Your task to perform on an android device: Go to ESPN.com Image 0: 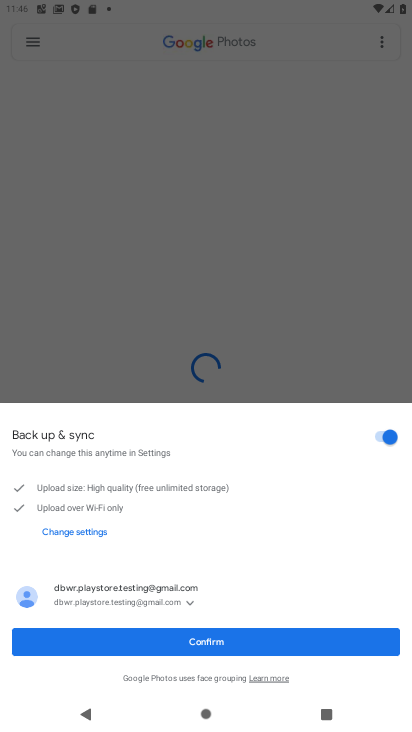
Step 0: press home button
Your task to perform on an android device: Go to ESPN.com Image 1: 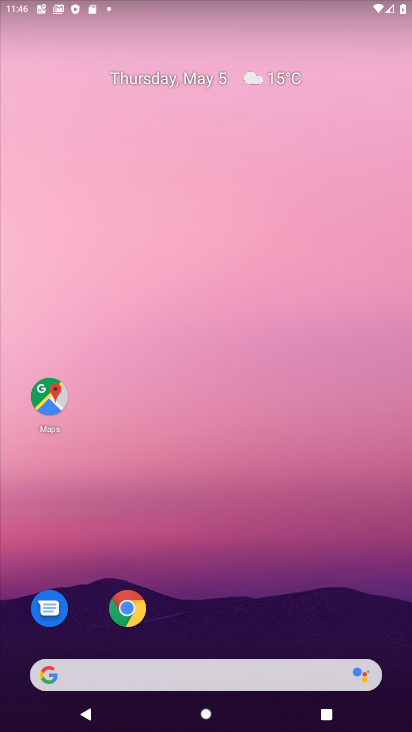
Step 1: drag from (252, 538) to (300, 125)
Your task to perform on an android device: Go to ESPN.com Image 2: 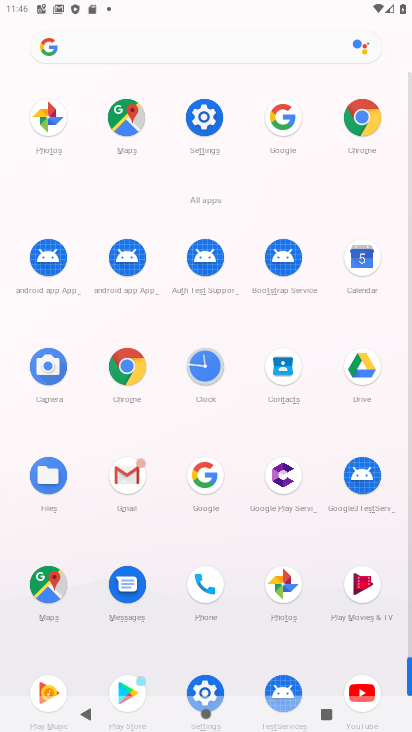
Step 2: click (366, 107)
Your task to perform on an android device: Go to ESPN.com Image 3: 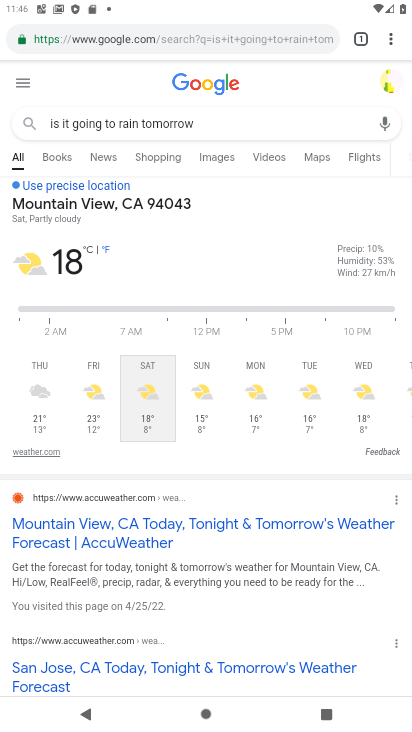
Step 3: click (148, 45)
Your task to perform on an android device: Go to ESPN.com Image 4: 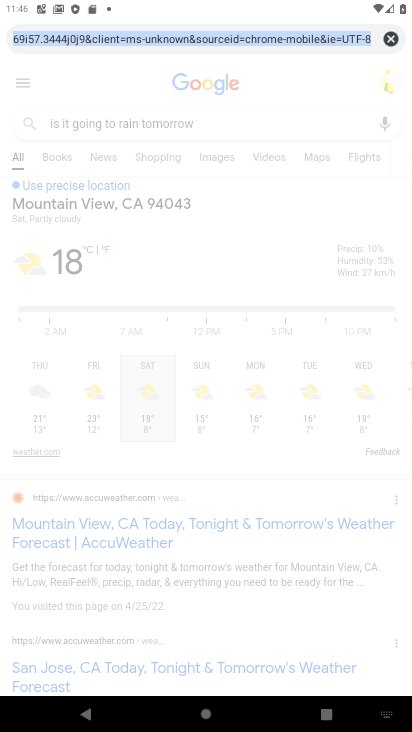
Step 4: type "ESPN.com"
Your task to perform on an android device: Go to ESPN.com Image 5: 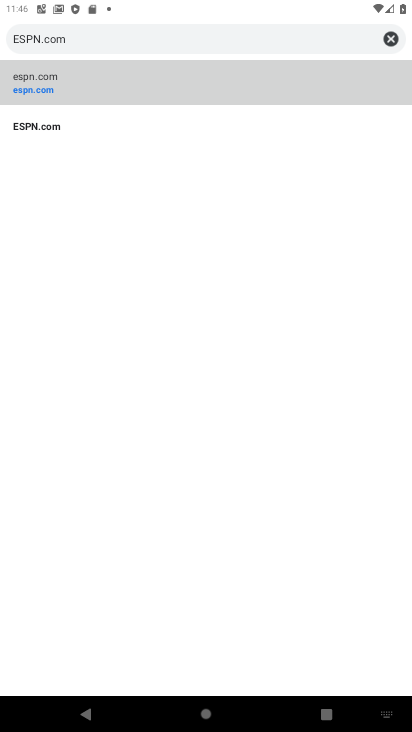
Step 5: click (78, 79)
Your task to perform on an android device: Go to ESPN.com Image 6: 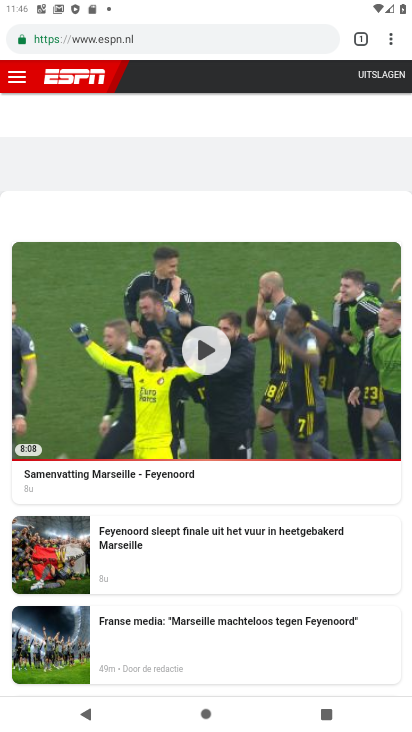
Step 6: task complete